Your task to perform on an android device: open app "Messages" Image 0: 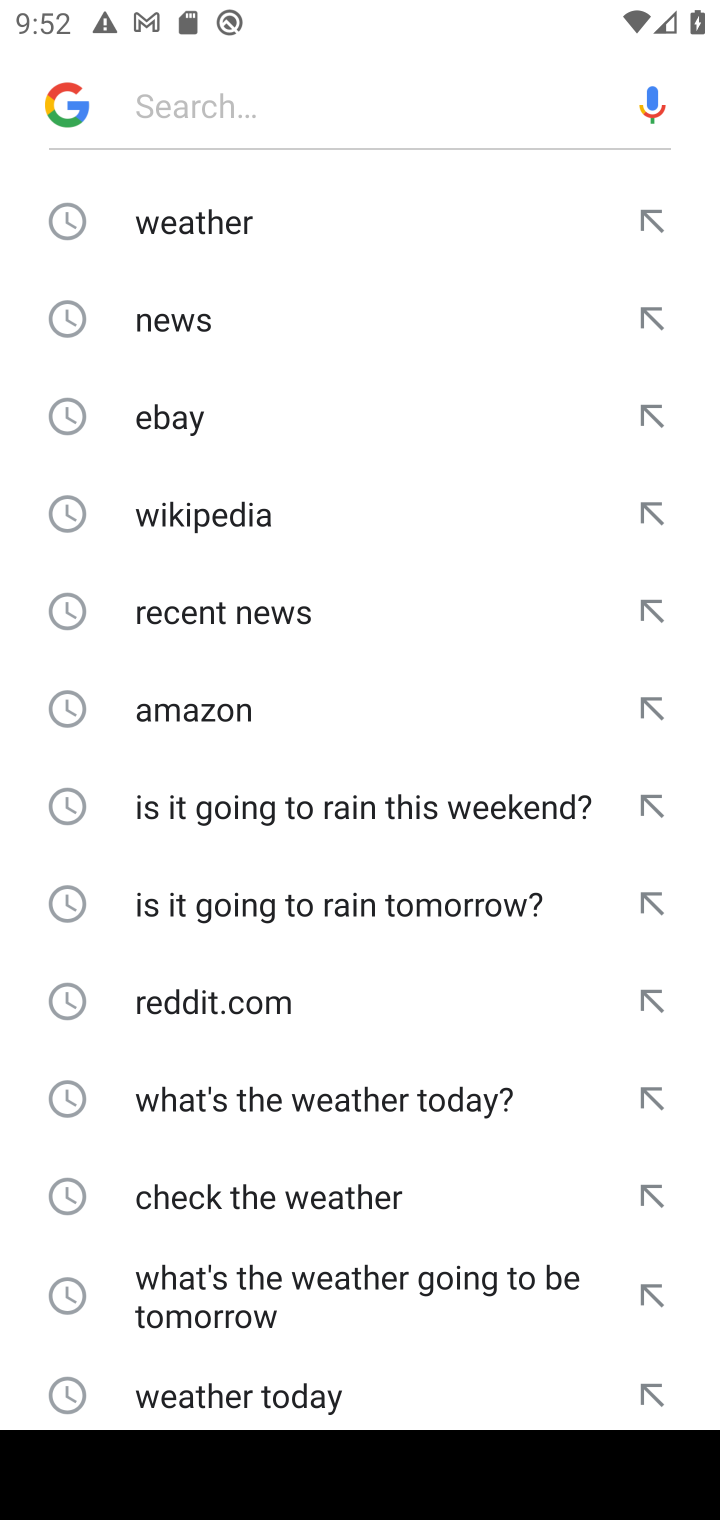
Step 0: press home button
Your task to perform on an android device: open app "Messages" Image 1: 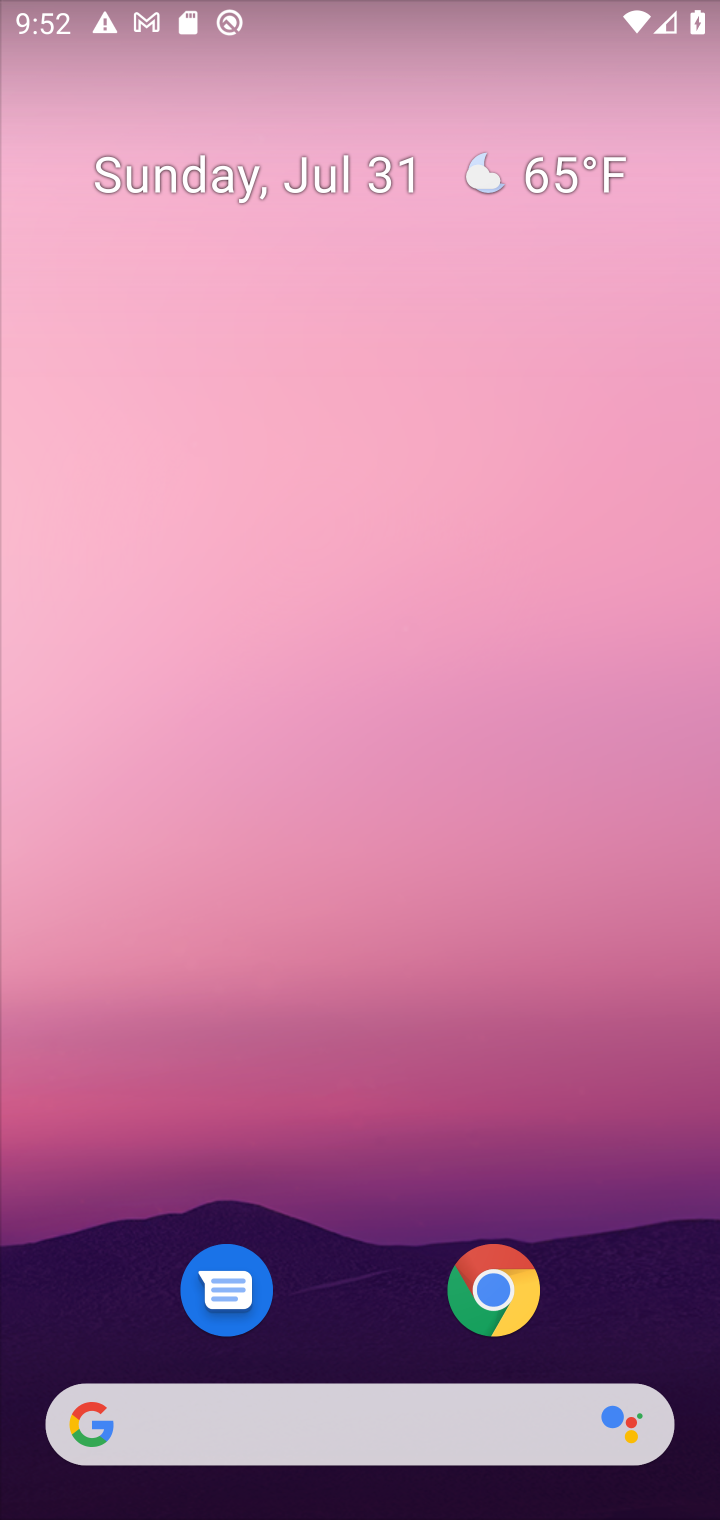
Step 1: drag from (623, 1215) to (681, 234)
Your task to perform on an android device: open app "Messages" Image 2: 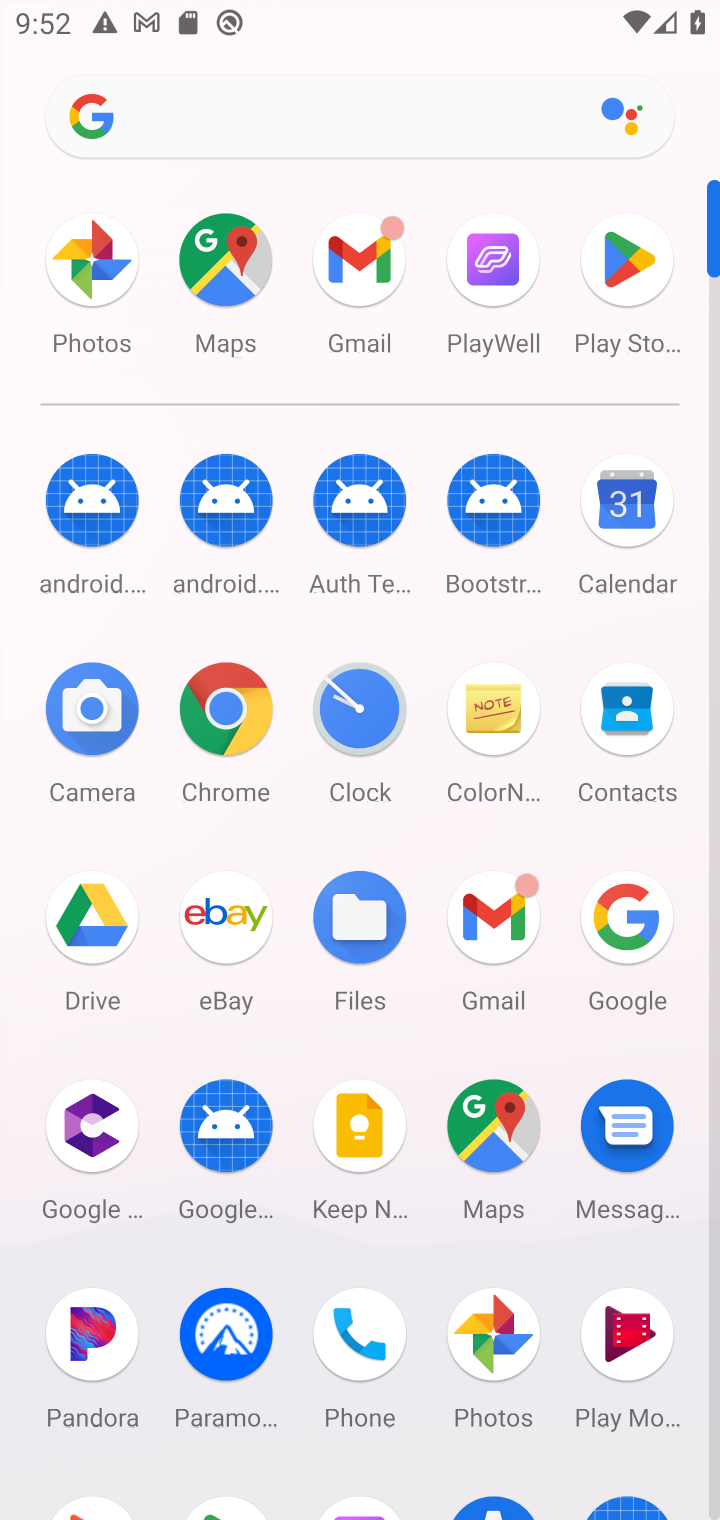
Step 2: click (594, 261)
Your task to perform on an android device: open app "Messages" Image 3: 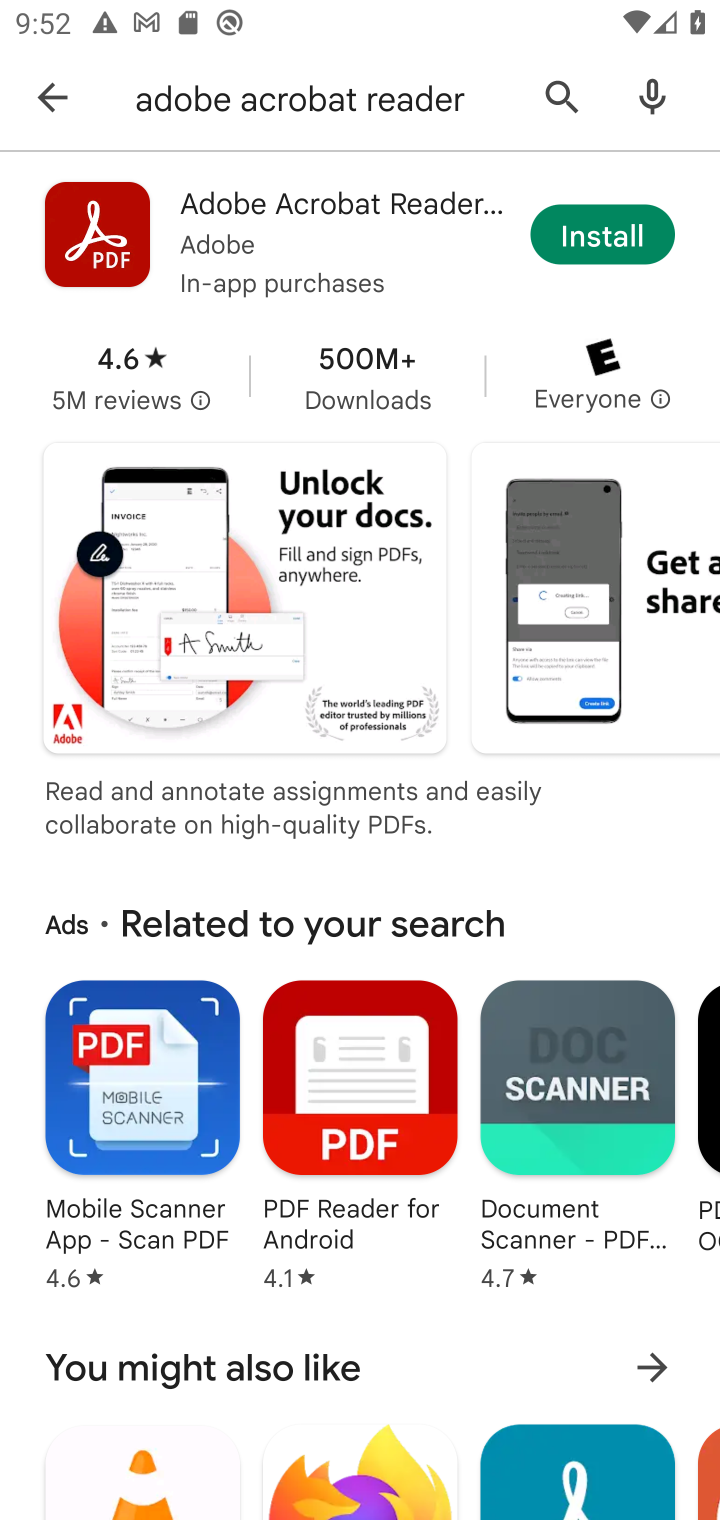
Step 3: click (561, 91)
Your task to perform on an android device: open app "Messages" Image 4: 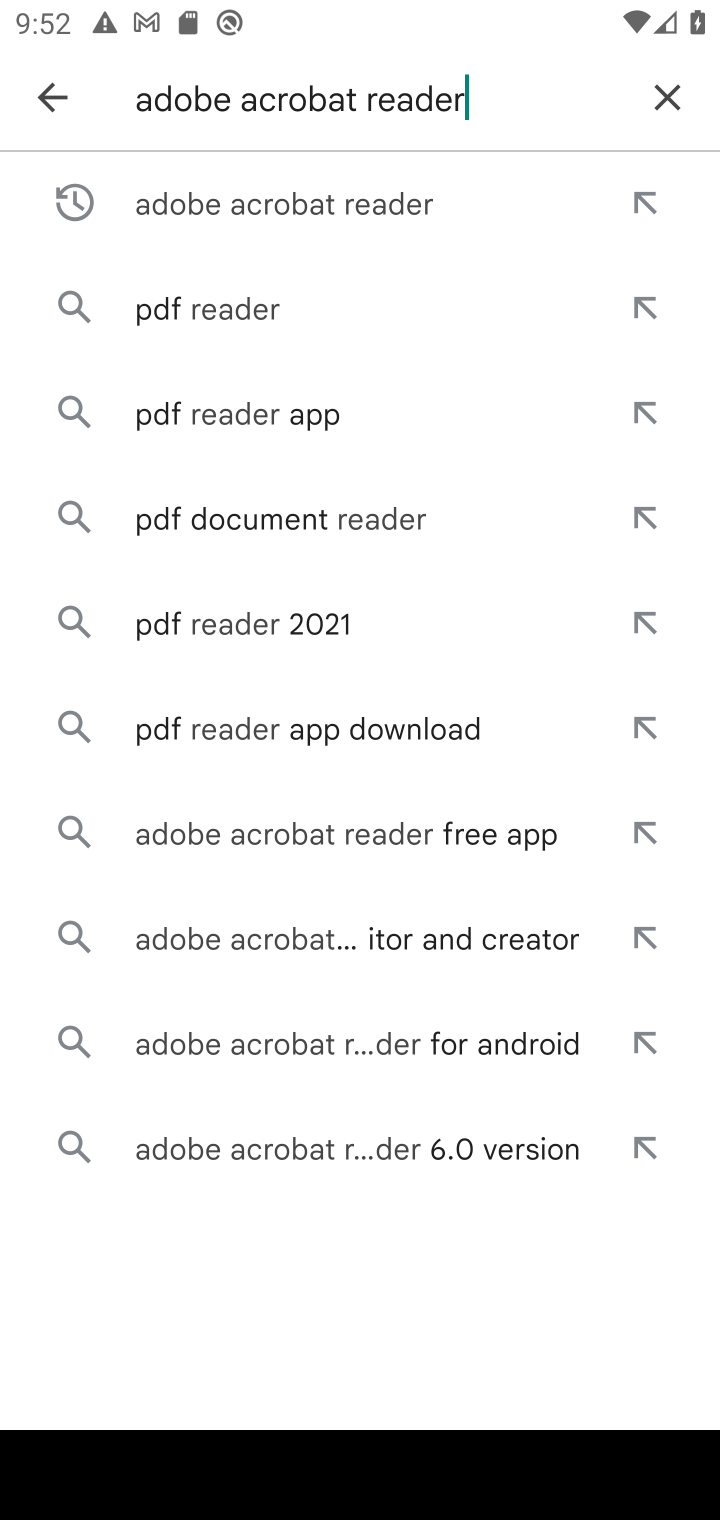
Step 4: click (671, 96)
Your task to perform on an android device: open app "Messages" Image 5: 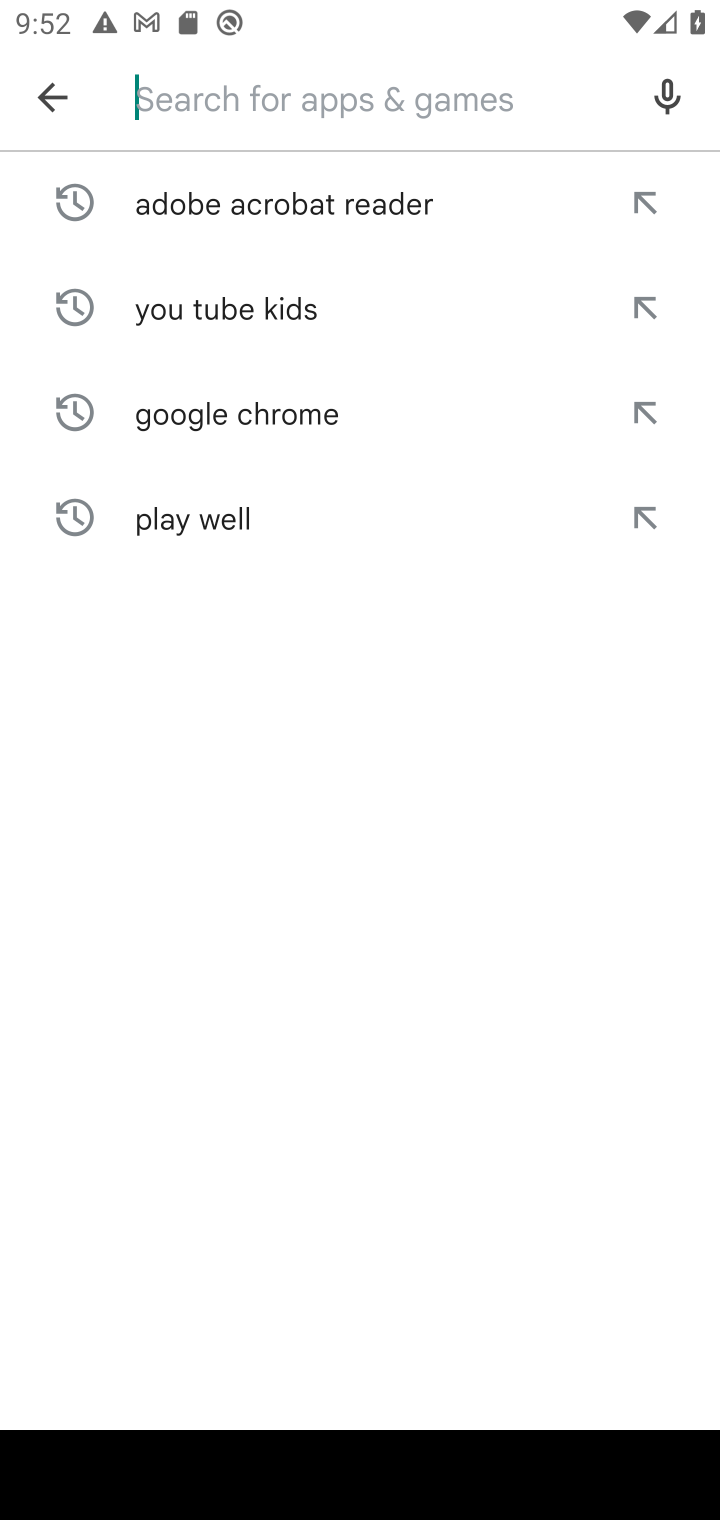
Step 5: type "messages"
Your task to perform on an android device: open app "Messages" Image 6: 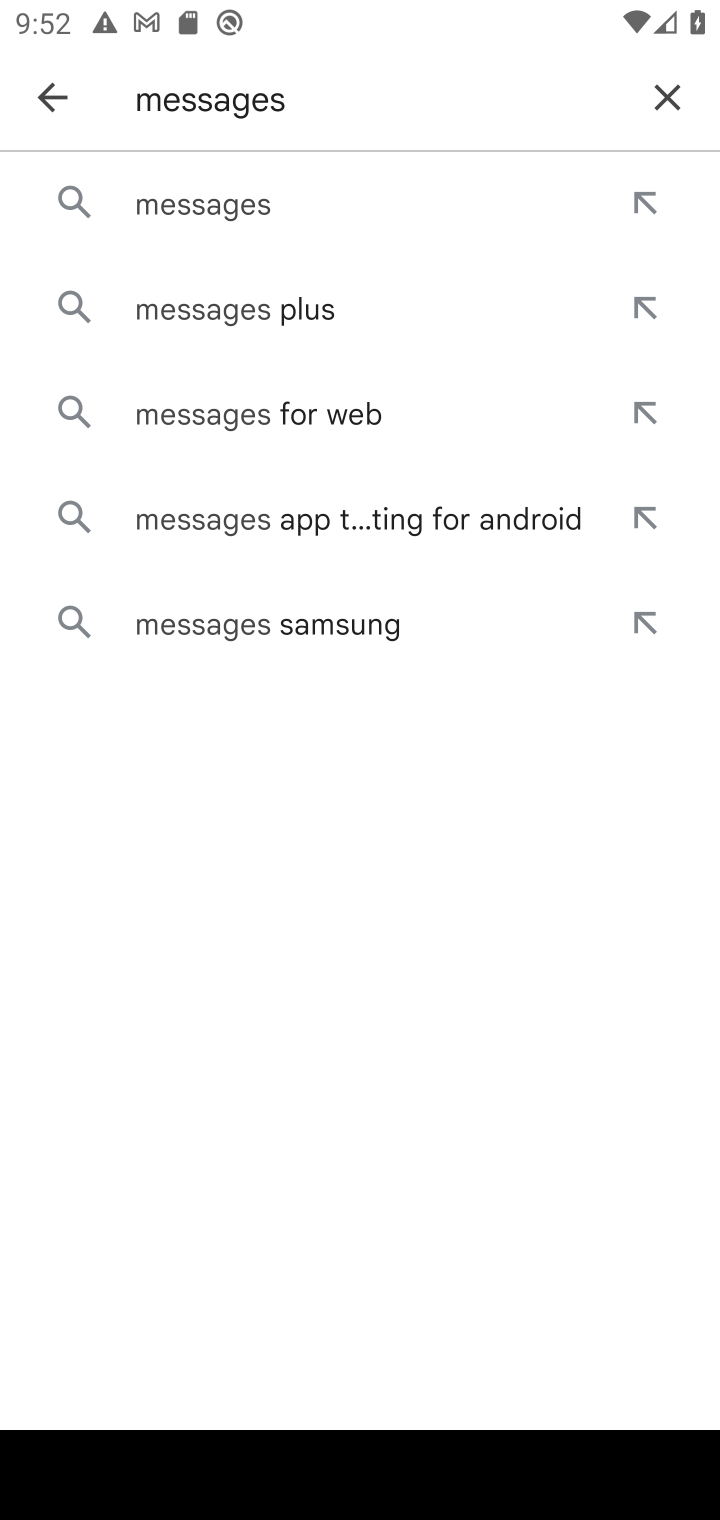
Step 6: click (272, 203)
Your task to perform on an android device: open app "Messages" Image 7: 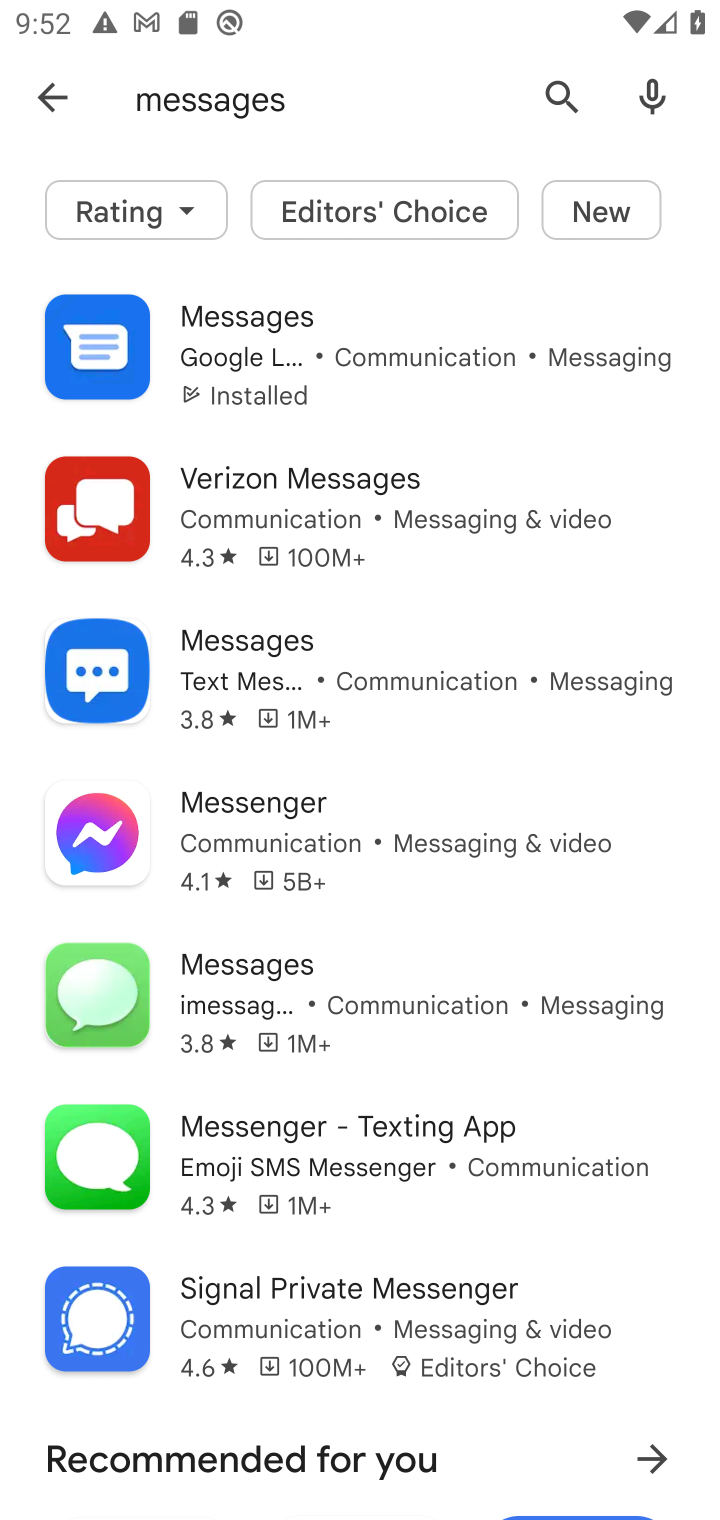
Step 7: click (311, 332)
Your task to perform on an android device: open app "Messages" Image 8: 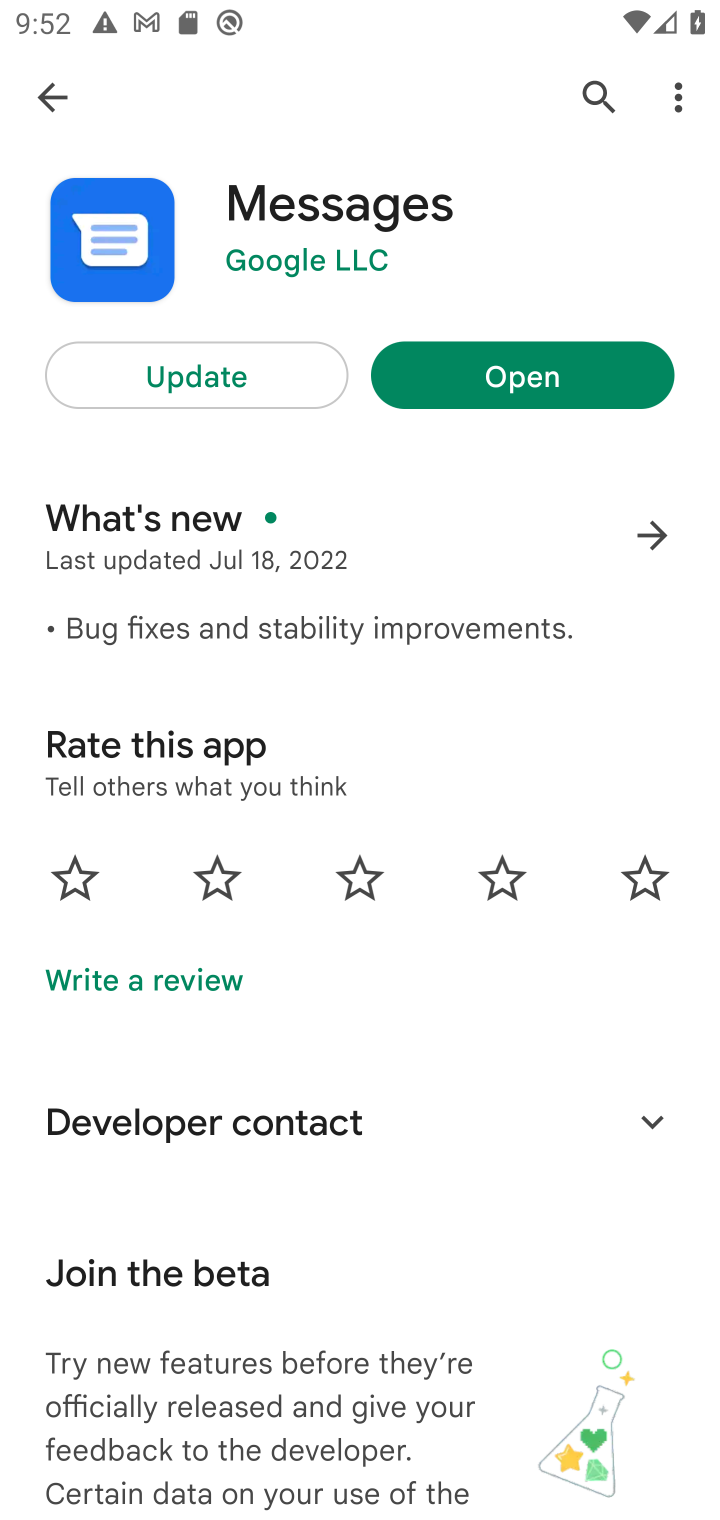
Step 8: click (522, 379)
Your task to perform on an android device: open app "Messages" Image 9: 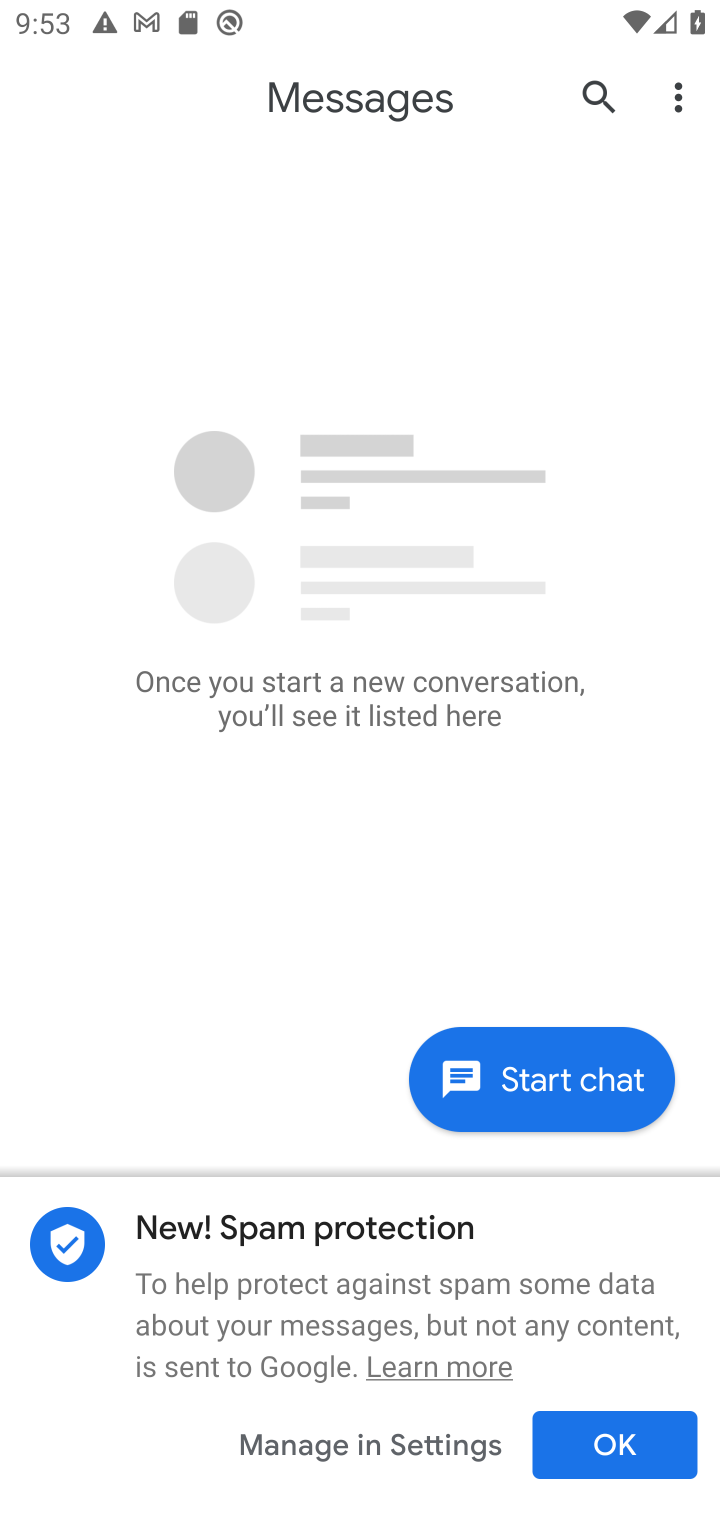
Step 9: task complete